Your task to perform on an android device: Show me the alarms in the clock app Image 0: 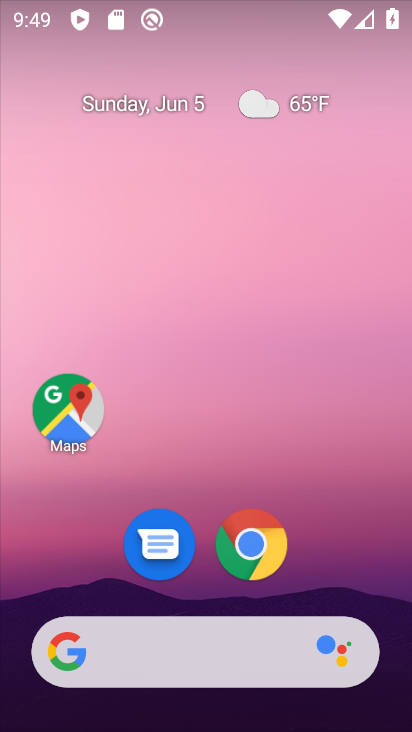
Step 0: drag from (360, 570) to (278, 95)
Your task to perform on an android device: Show me the alarms in the clock app Image 1: 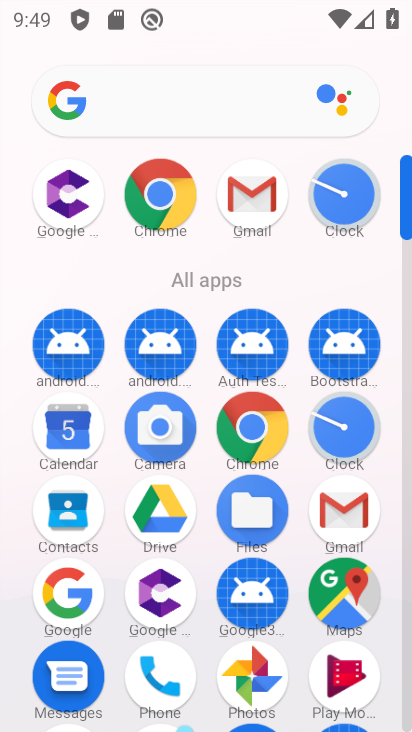
Step 1: click (347, 176)
Your task to perform on an android device: Show me the alarms in the clock app Image 2: 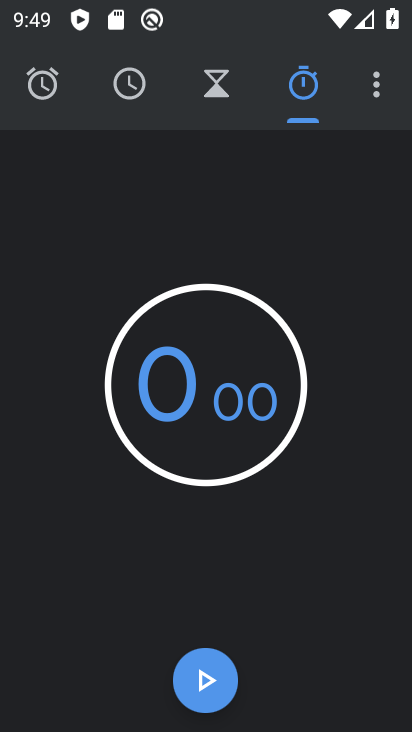
Step 2: task complete